Your task to perform on an android device: uninstall "Fetch Rewards" Image 0: 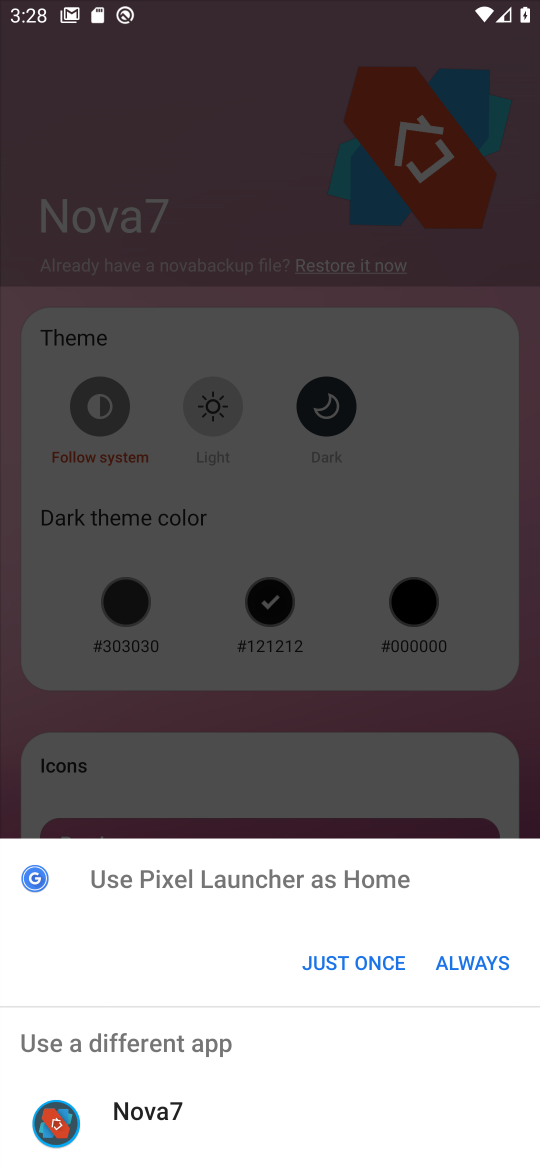
Step 0: press home button
Your task to perform on an android device: uninstall "Fetch Rewards" Image 1: 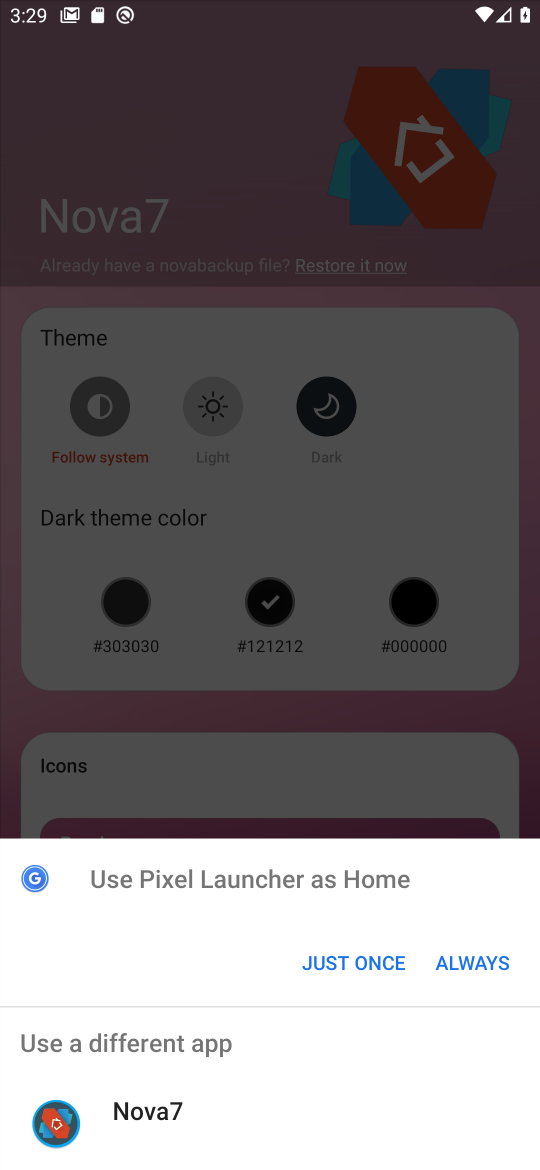
Step 1: click (469, 966)
Your task to perform on an android device: uninstall "Fetch Rewards" Image 2: 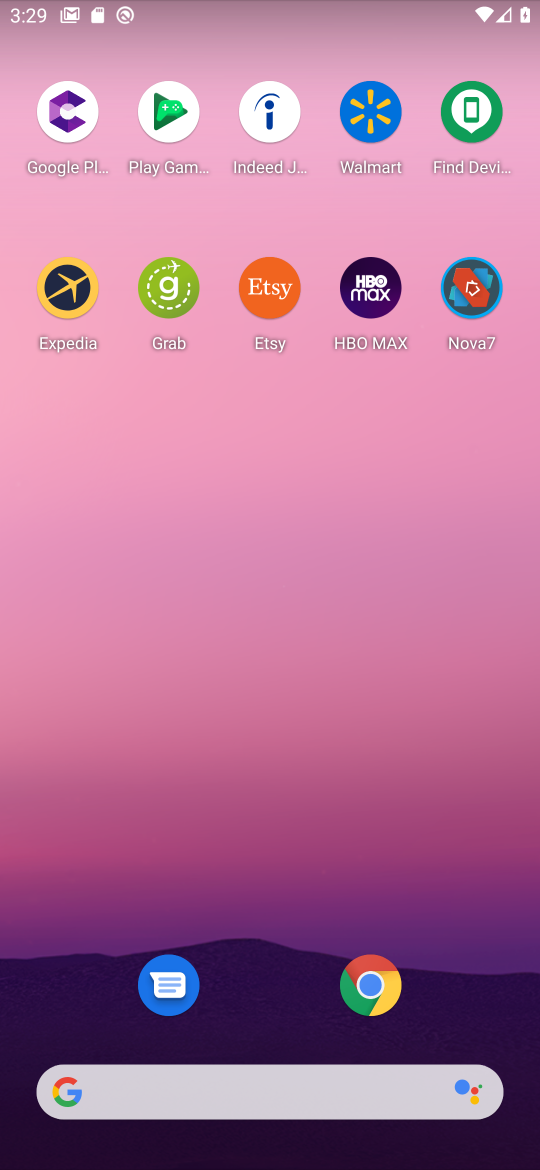
Step 2: press home button
Your task to perform on an android device: uninstall "Fetch Rewards" Image 3: 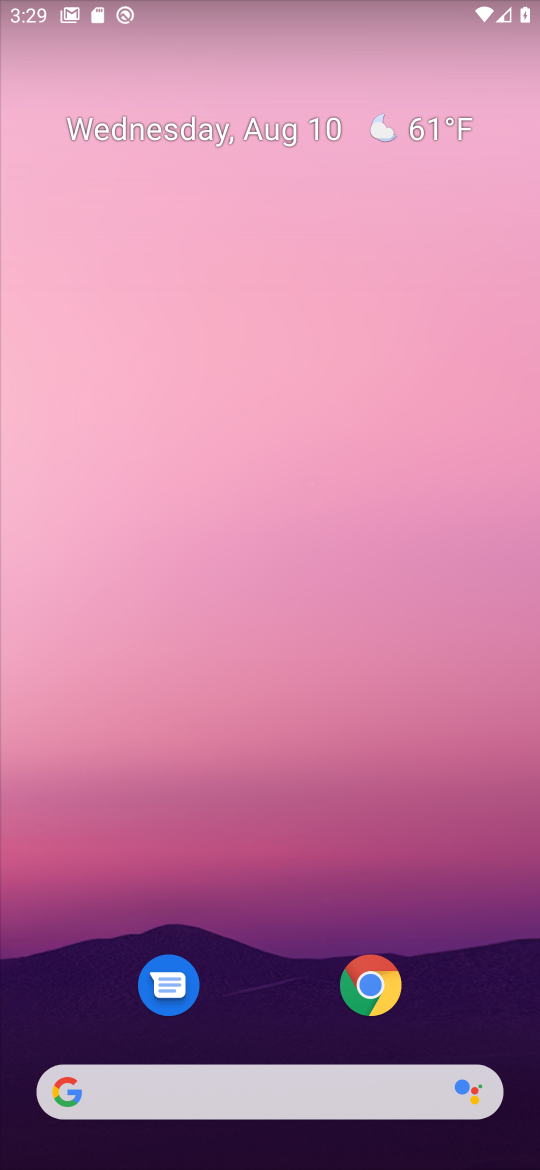
Step 3: drag from (252, 1022) to (210, 248)
Your task to perform on an android device: uninstall "Fetch Rewards" Image 4: 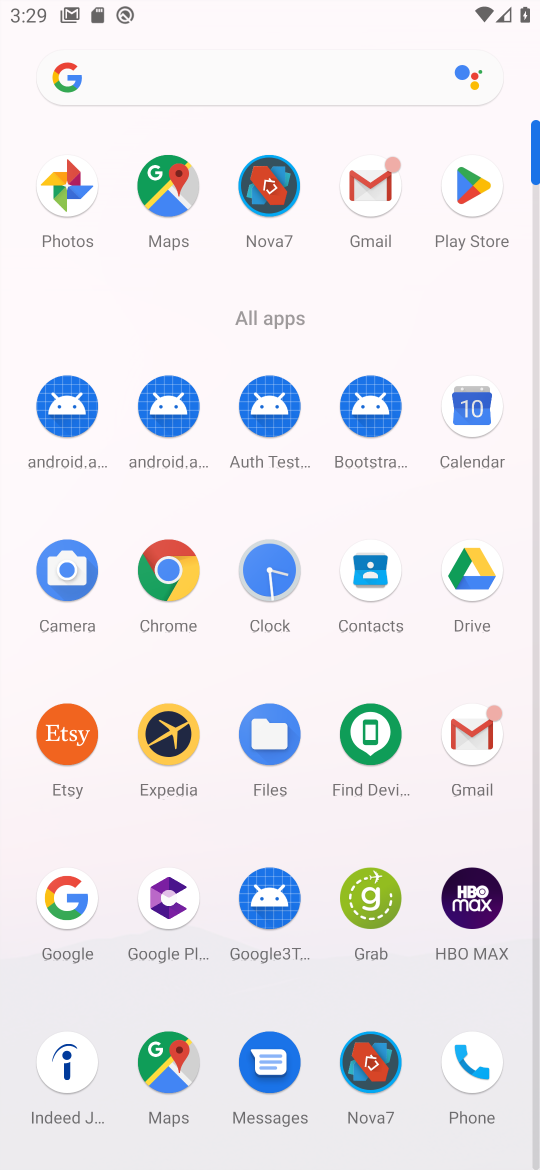
Step 4: click (468, 192)
Your task to perform on an android device: uninstall "Fetch Rewards" Image 5: 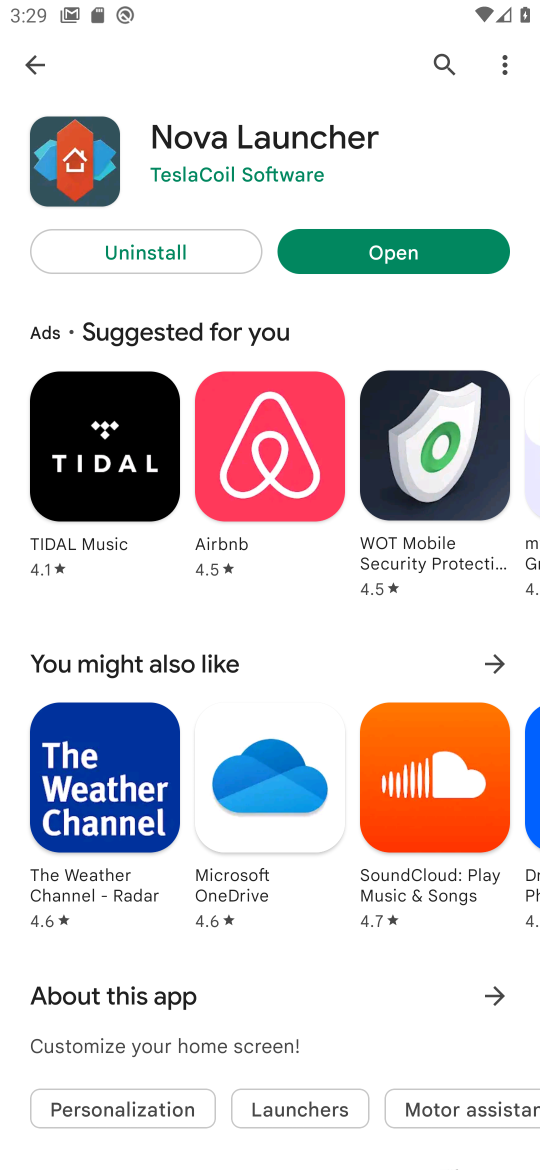
Step 5: click (26, 59)
Your task to perform on an android device: uninstall "Fetch Rewards" Image 6: 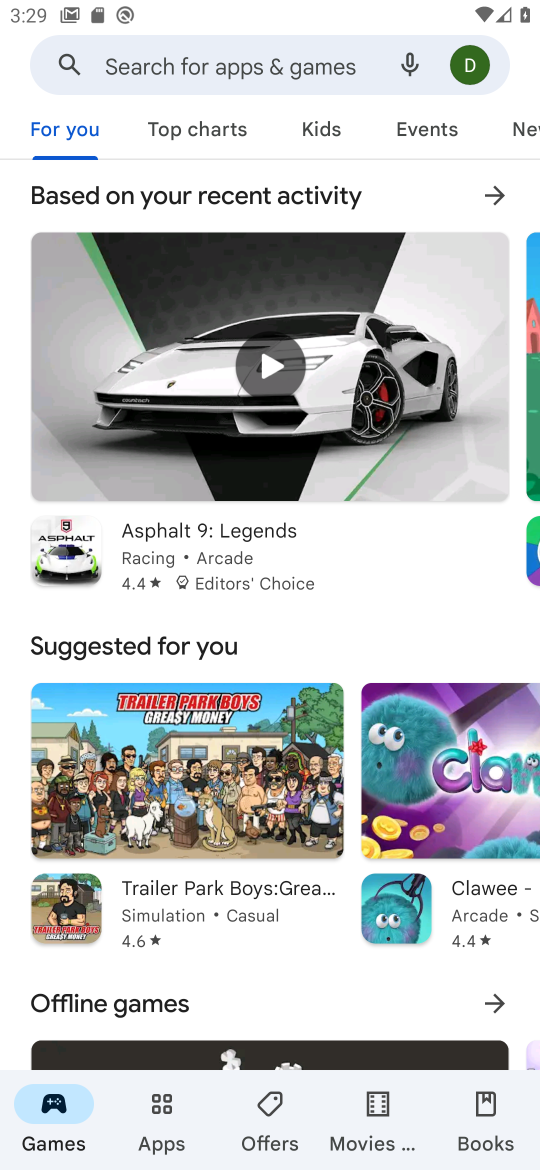
Step 6: click (213, 59)
Your task to perform on an android device: uninstall "Fetch Rewards" Image 7: 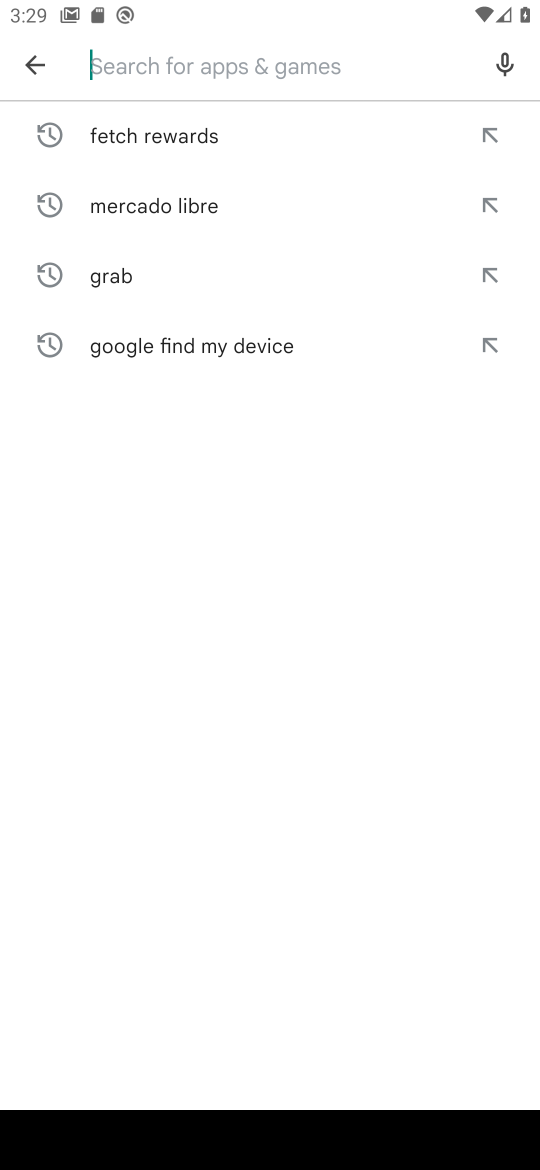
Step 7: type "Fetch Rewards"
Your task to perform on an android device: uninstall "Fetch Rewards" Image 8: 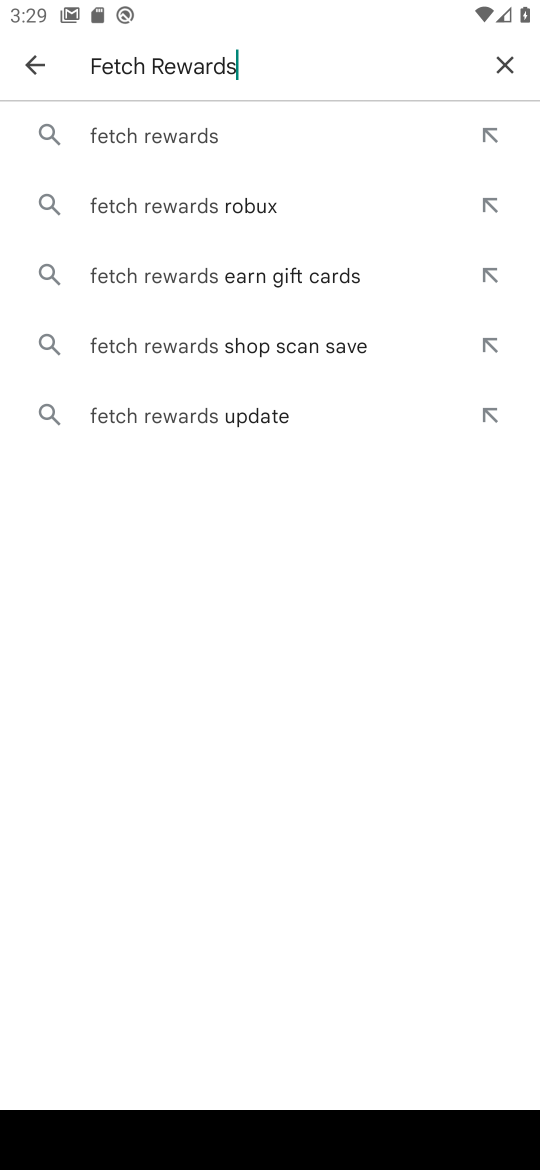
Step 8: click (111, 134)
Your task to perform on an android device: uninstall "Fetch Rewards" Image 9: 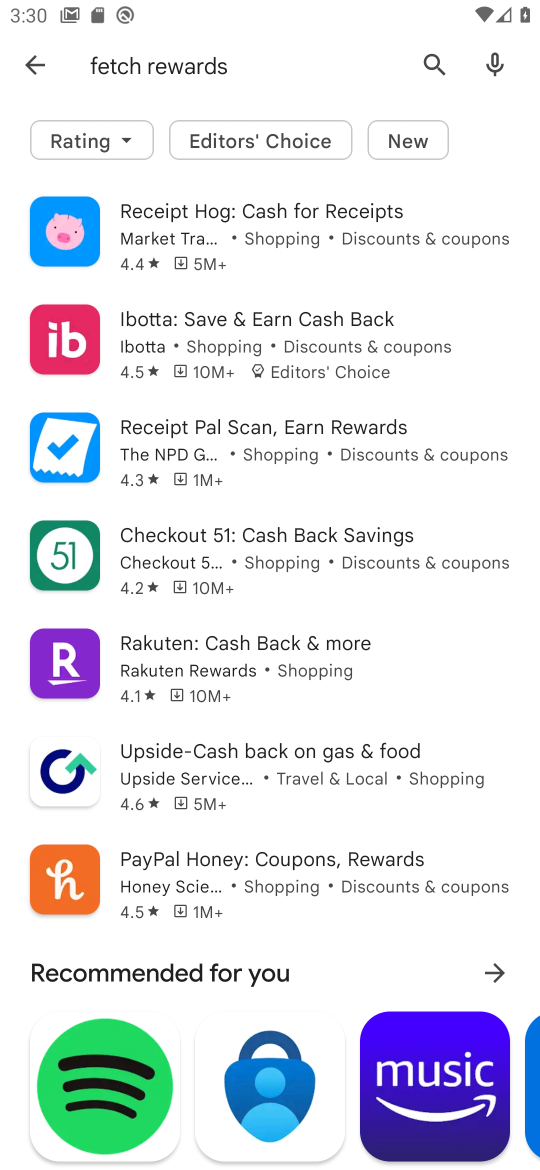
Step 9: task complete